Your task to perform on an android device: Go to network settings Image 0: 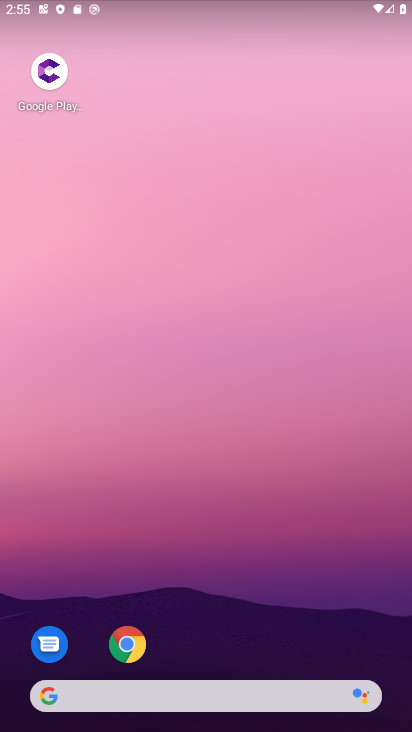
Step 0: drag from (322, 631) to (288, 141)
Your task to perform on an android device: Go to network settings Image 1: 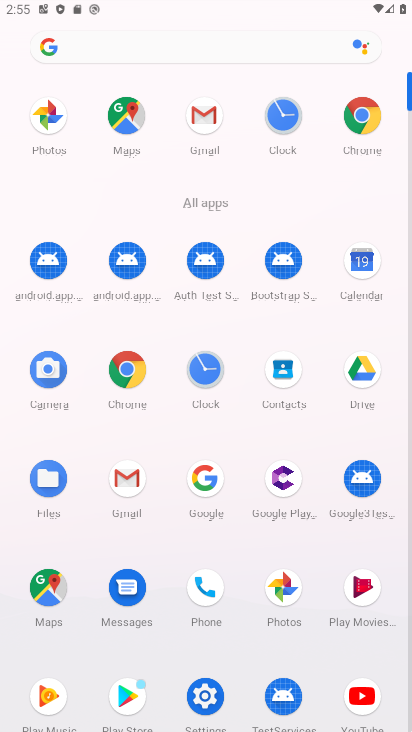
Step 1: click (202, 696)
Your task to perform on an android device: Go to network settings Image 2: 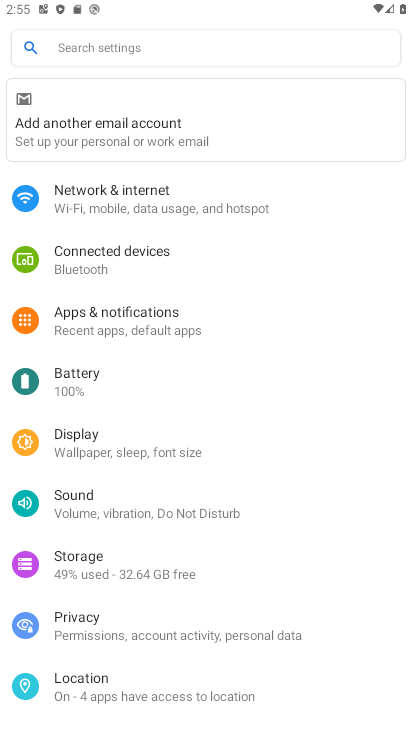
Step 2: click (110, 203)
Your task to perform on an android device: Go to network settings Image 3: 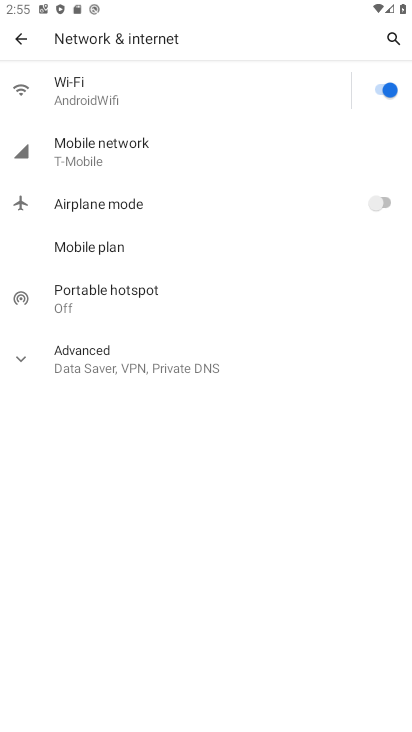
Step 3: click (94, 148)
Your task to perform on an android device: Go to network settings Image 4: 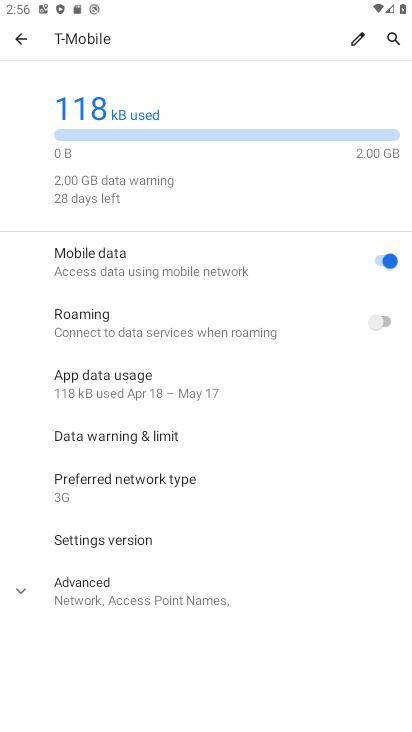
Step 4: task complete